Your task to perform on an android device: Open display settings Image 0: 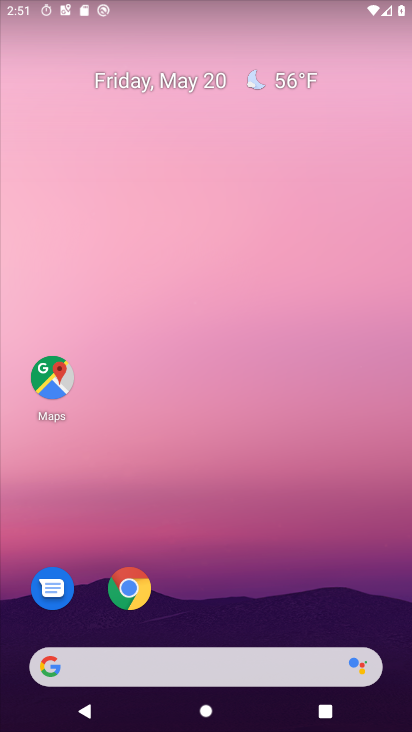
Step 0: drag from (50, 548) to (227, 183)
Your task to perform on an android device: Open display settings Image 1: 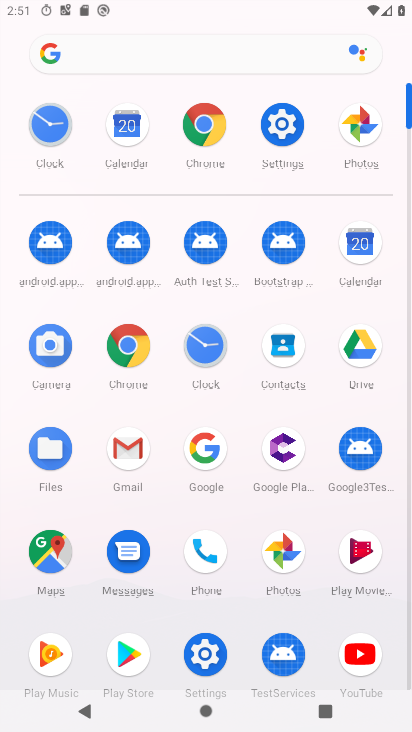
Step 1: click (284, 115)
Your task to perform on an android device: Open display settings Image 2: 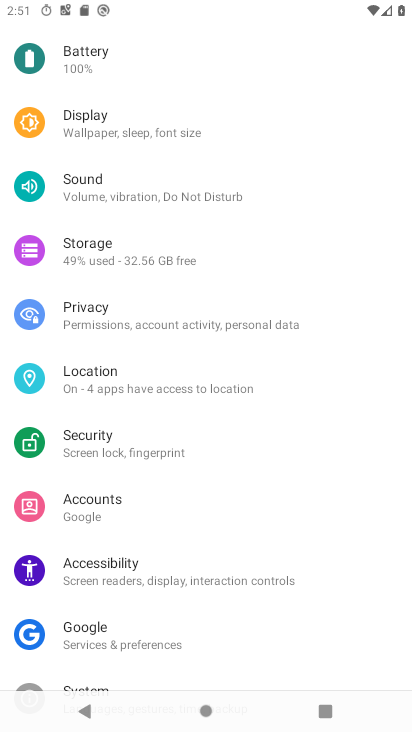
Step 2: click (69, 128)
Your task to perform on an android device: Open display settings Image 3: 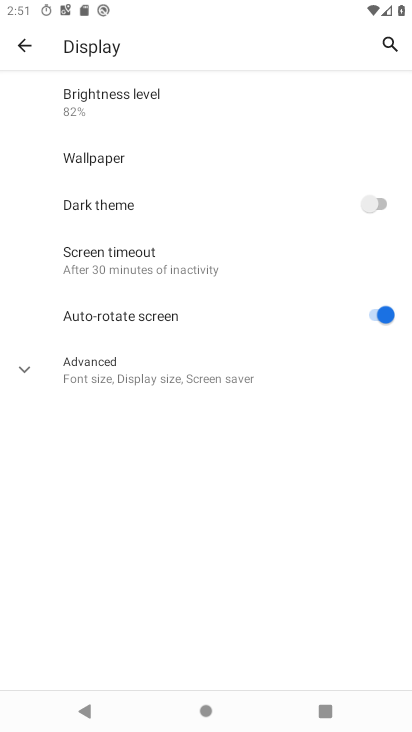
Step 3: task complete